Your task to perform on an android device: turn off priority inbox in the gmail app Image 0: 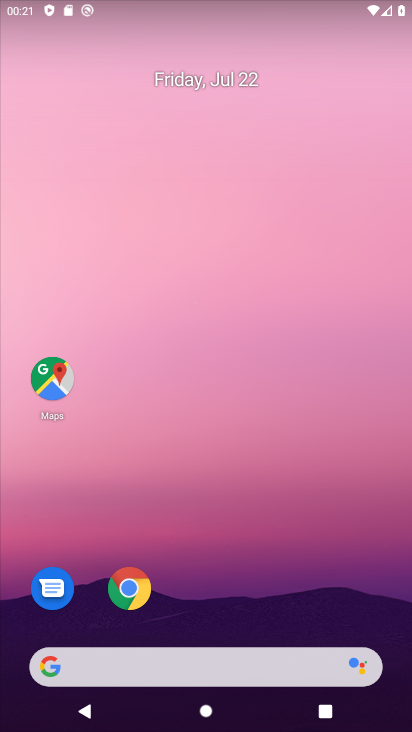
Step 0: drag from (268, 498) to (359, 16)
Your task to perform on an android device: turn off priority inbox in the gmail app Image 1: 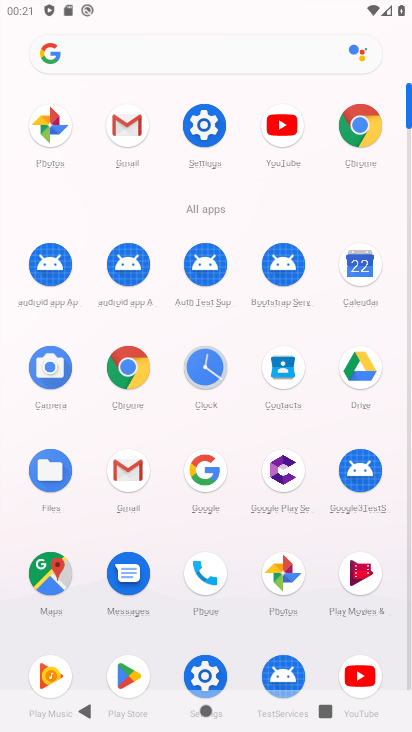
Step 1: click (133, 127)
Your task to perform on an android device: turn off priority inbox in the gmail app Image 2: 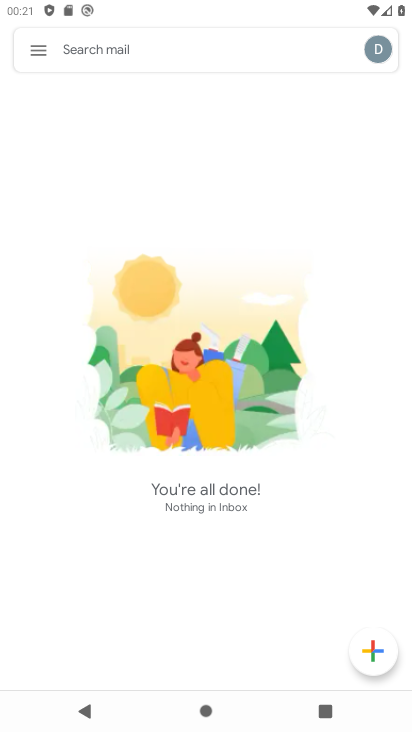
Step 2: click (27, 48)
Your task to perform on an android device: turn off priority inbox in the gmail app Image 3: 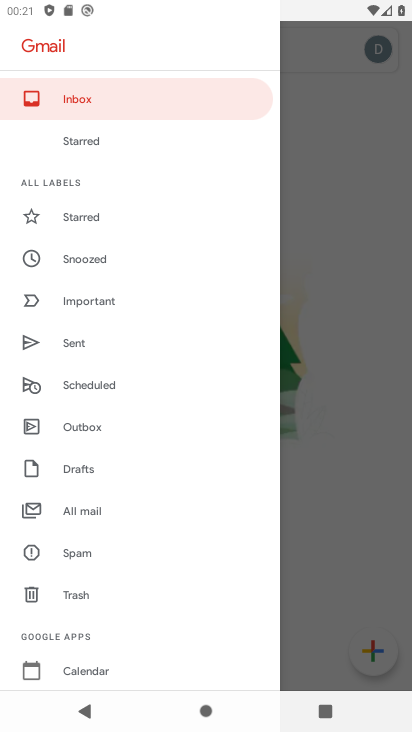
Step 3: drag from (93, 583) to (200, 79)
Your task to perform on an android device: turn off priority inbox in the gmail app Image 4: 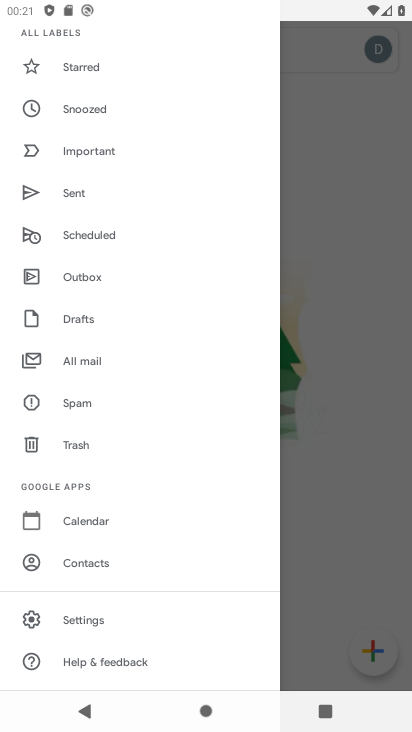
Step 4: click (75, 618)
Your task to perform on an android device: turn off priority inbox in the gmail app Image 5: 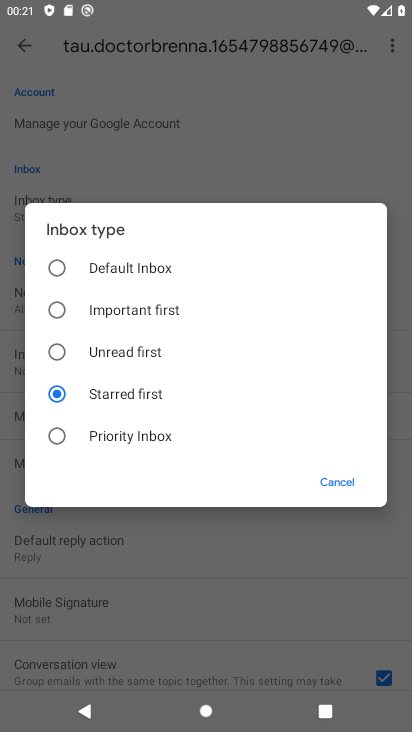
Step 5: task complete